Your task to perform on an android device: allow cookies in the chrome app Image 0: 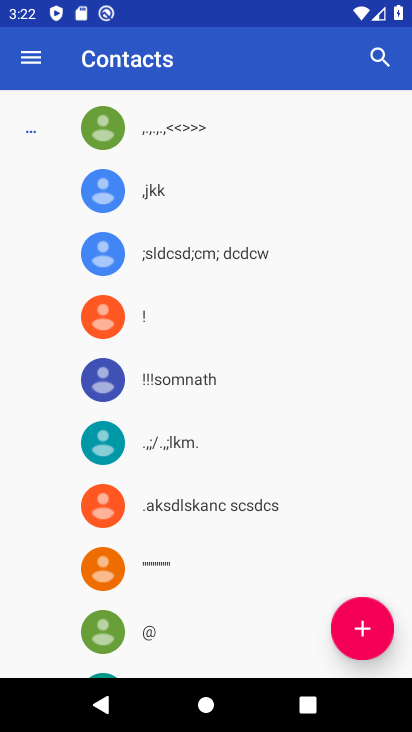
Step 0: press back button
Your task to perform on an android device: allow cookies in the chrome app Image 1: 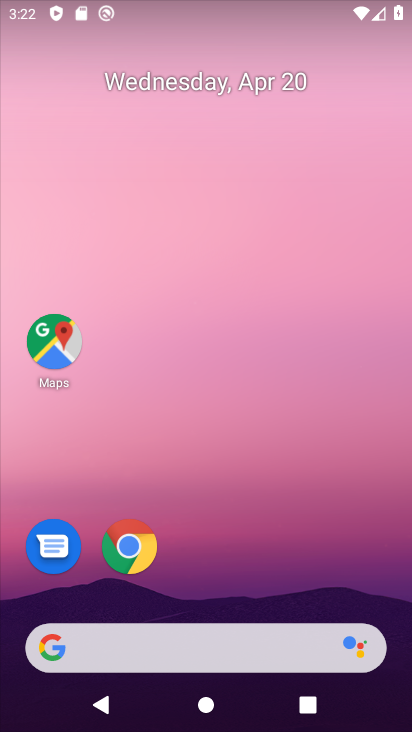
Step 1: click (131, 559)
Your task to perform on an android device: allow cookies in the chrome app Image 2: 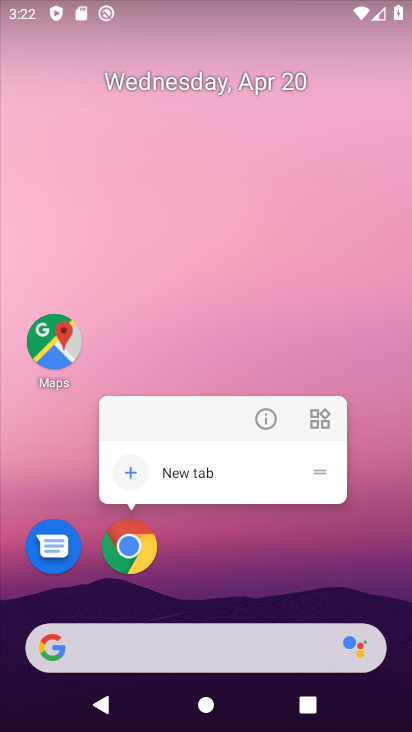
Step 2: click (132, 557)
Your task to perform on an android device: allow cookies in the chrome app Image 3: 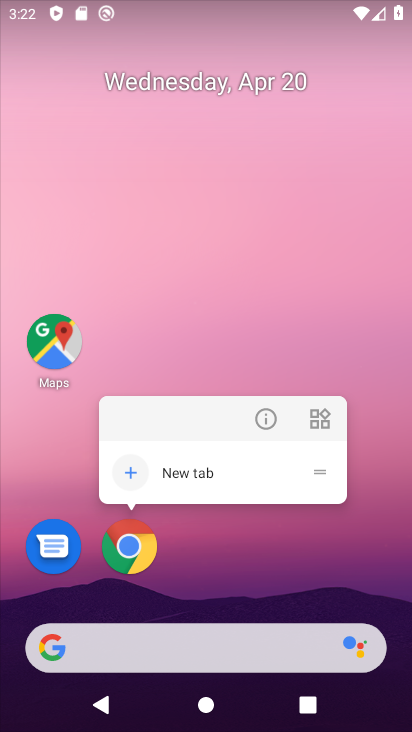
Step 3: click (131, 556)
Your task to perform on an android device: allow cookies in the chrome app Image 4: 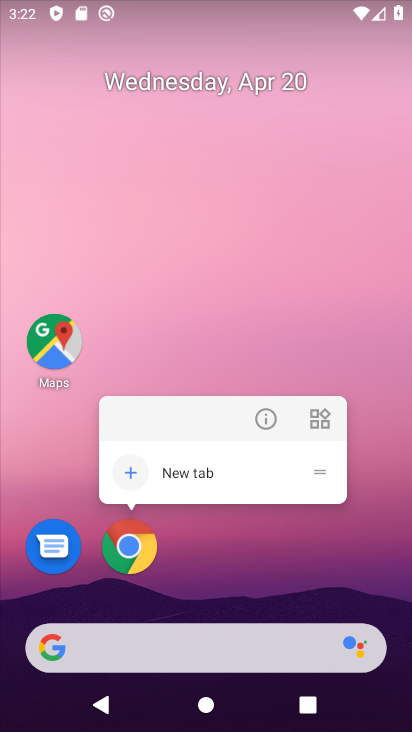
Step 4: click (131, 553)
Your task to perform on an android device: allow cookies in the chrome app Image 5: 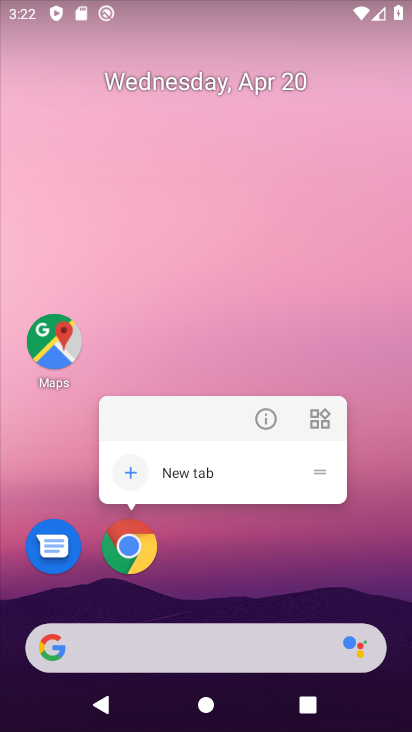
Step 5: click (128, 555)
Your task to perform on an android device: allow cookies in the chrome app Image 6: 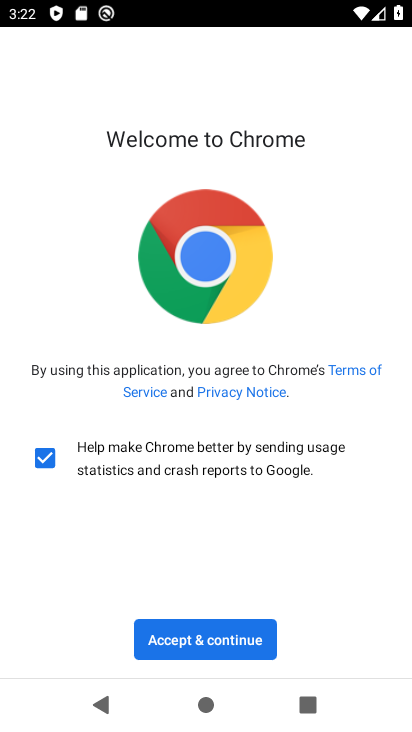
Step 6: click (231, 657)
Your task to perform on an android device: allow cookies in the chrome app Image 7: 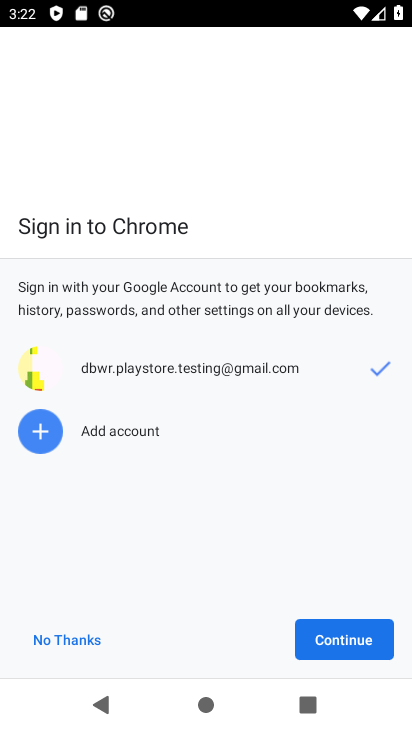
Step 7: click (381, 642)
Your task to perform on an android device: allow cookies in the chrome app Image 8: 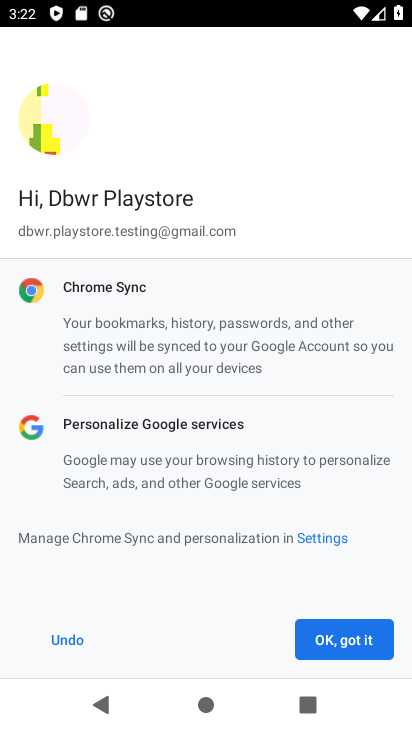
Step 8: click (382, 641)
Your task to perform on an android device: allow cookies in the chrome app Image 9: 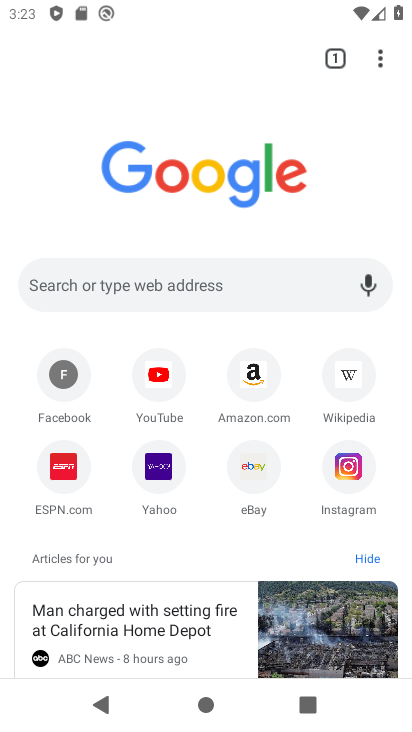
Step 9: click (384, 61)
Your task to perform on an android device: allow cookies in the chrome app Image 10: 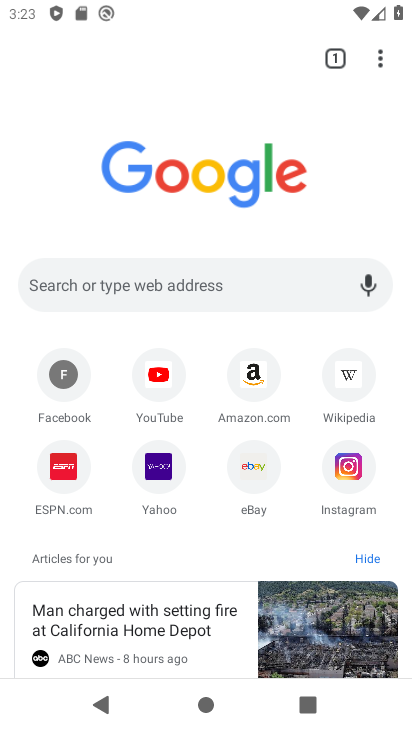
Step 10: drag from (379, 68) to (262, 486)
Your task to perform on an android device: allow cookies in the chrome app Image 11: 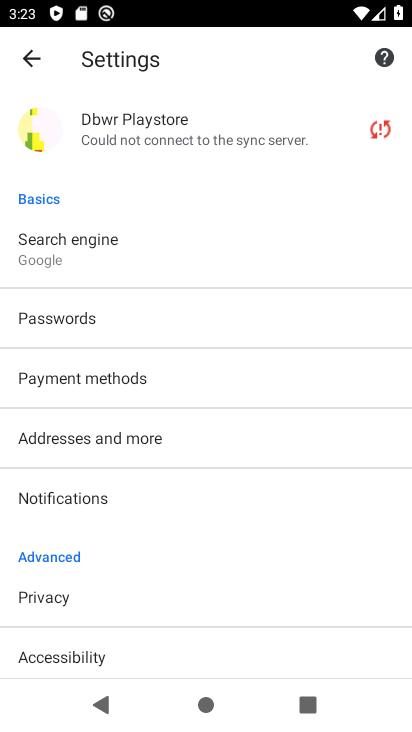
Step 11: drag from (241, 617) to (307, 241)
Your task to perform on an android device: allow cookies in the chrome app Image 12: 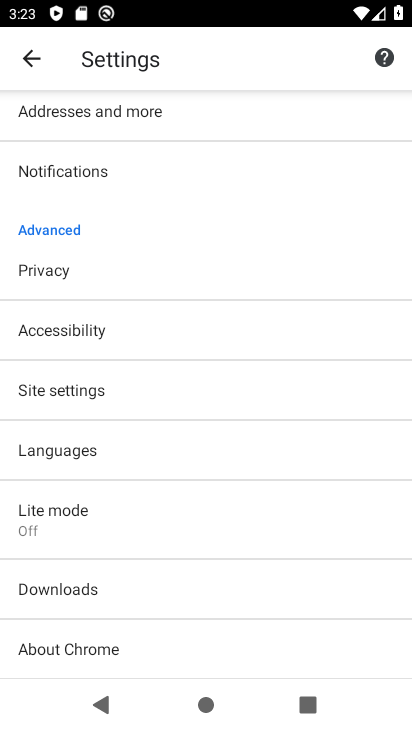
Step 12: click (181, 384)
Your task to perform on an android device: allow cookies in the chrome app Image 13: 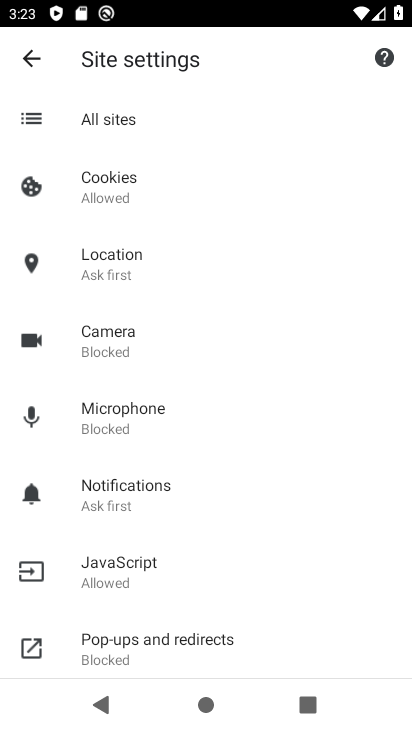
Step 13: click (200, 208)
Your task to perform on an android device: allow cookies in the chrome app Image 14: 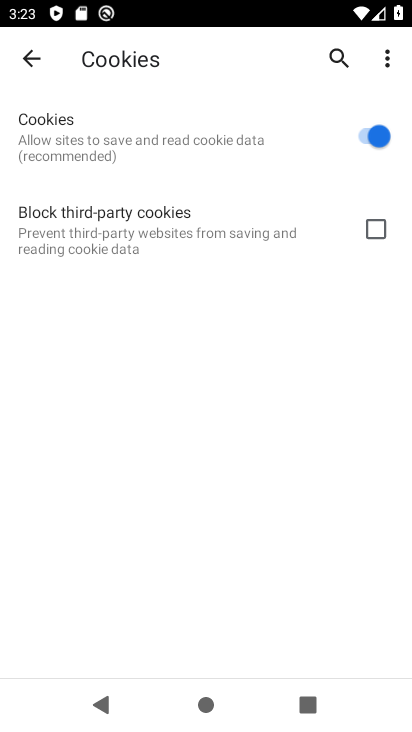
Step 14: click (369, 132)
Your task to perform on an android device: allow cookies in the chrome app Image 15: 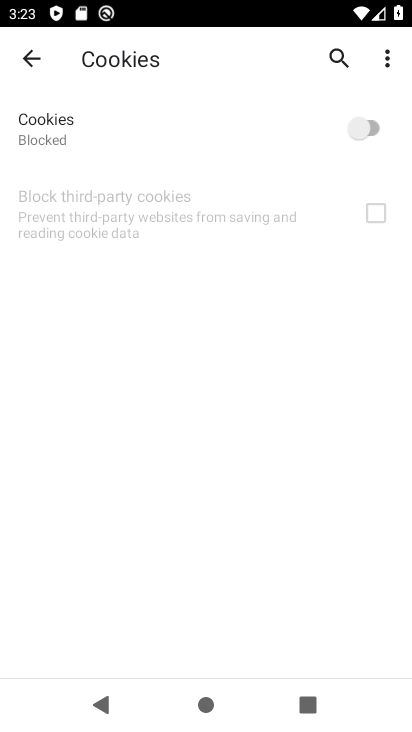
Step 15: task complete